Your task to perform on an android device: Turn on the flashlight Image 0: 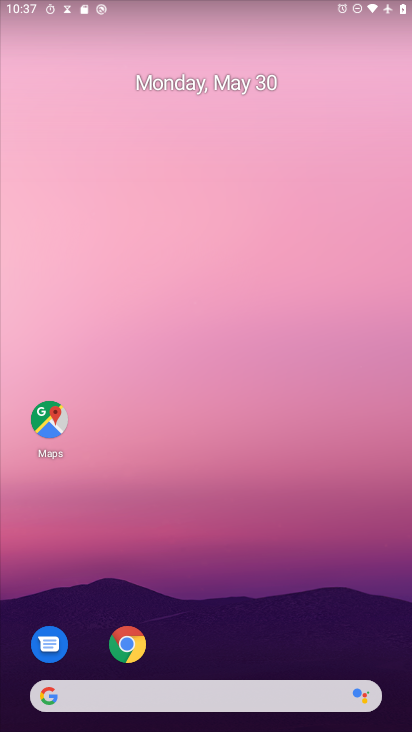
Step 0: drag from (220, 588) to (220, 40)
Your task to perform on an android device: Turn on the flashlight Image 1: 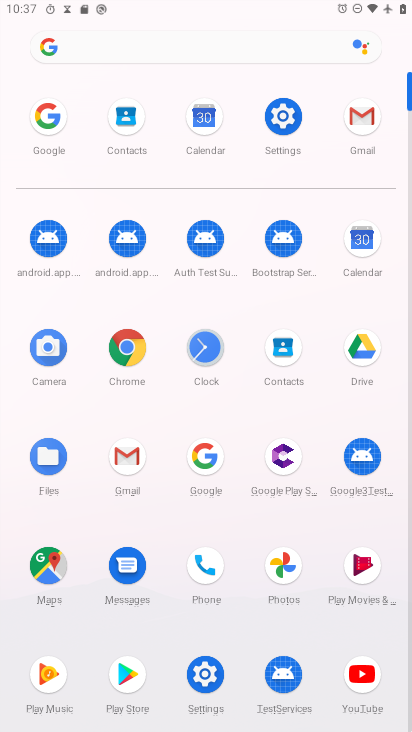
Step 1: click (285, 117)
Your task to perform on an android device: Turn on the flashlight Image 2: 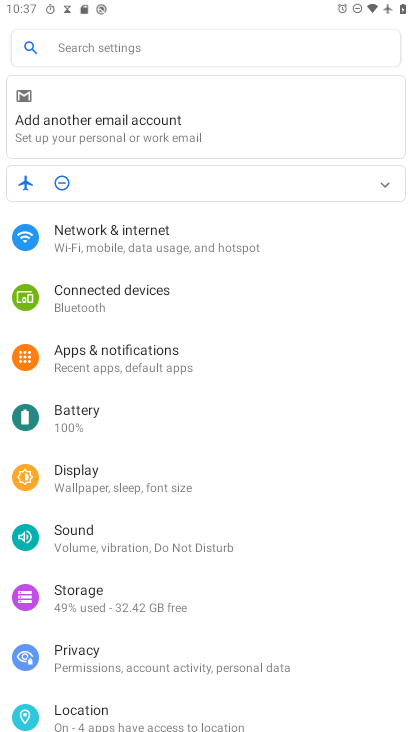
Step 2: click (175, 50)
Your task to perform on an android device: Turn on the flashlight Image 3: 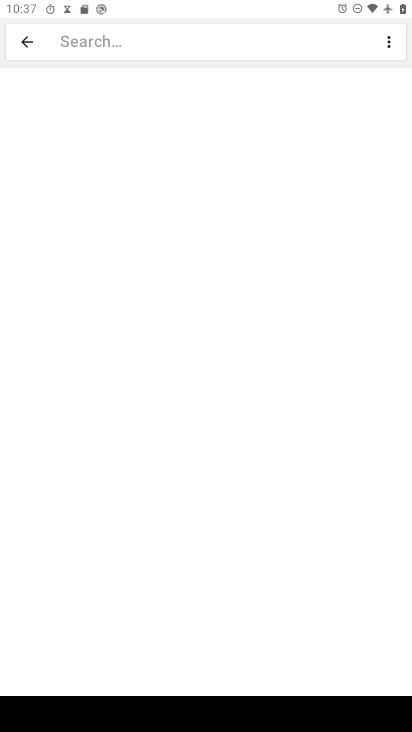
Step 3: type "flash"
Your task to perform on an android device: Turn on the flashlight Image 4: 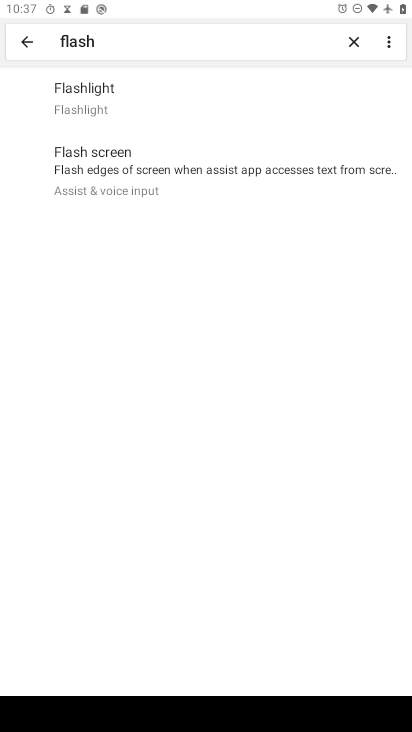
Step 4: task complete